Your task to perform on an android device: Is it going to rain today? Image 0: 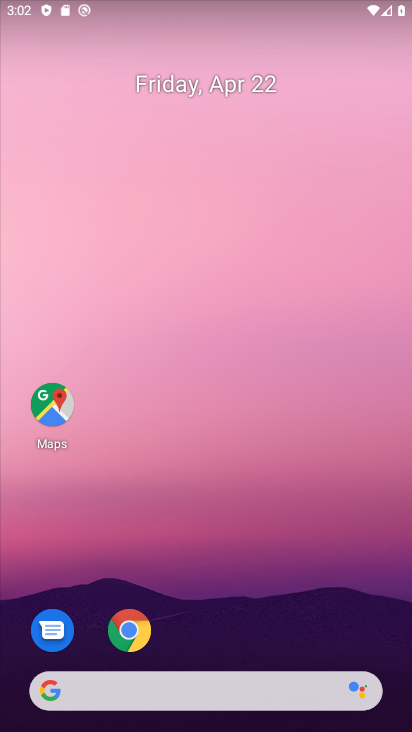
Step 0: click (132, 692)
Your task to perform on an android device: Is it going to rain today? Image 1: 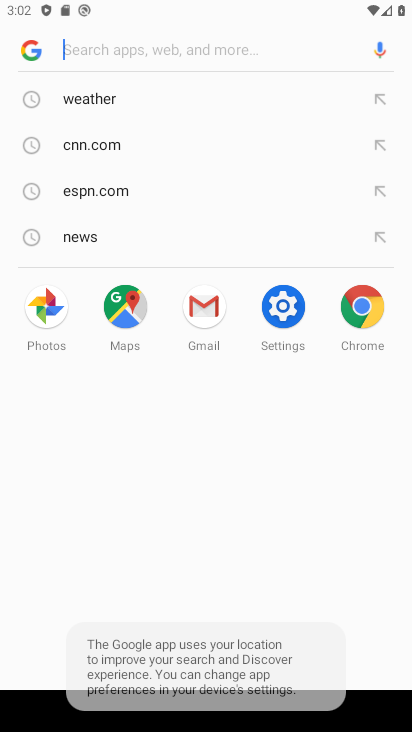
Step 1: click (101, 102)
Your task to perform on an android device: Is it going to rain today? Image 2: 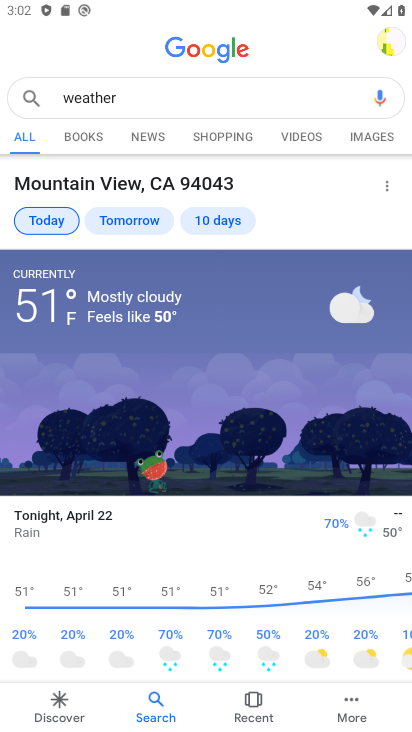
Step 2: task complete